Your task to perform on an android device: Go to Google Image 0: 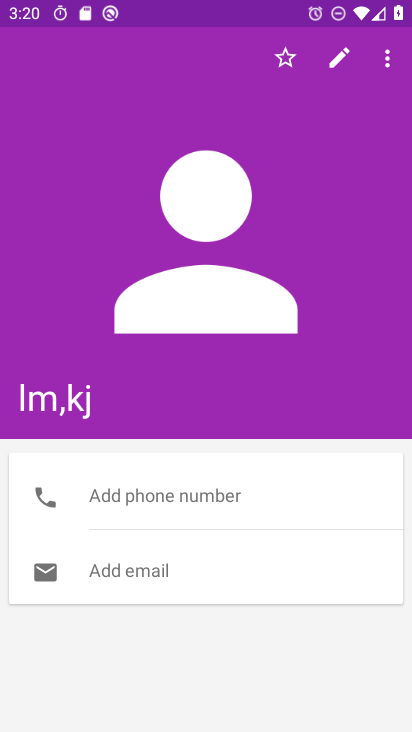
Step 0: press home button
Your task to perform on an android device: Go to Google Image 1: 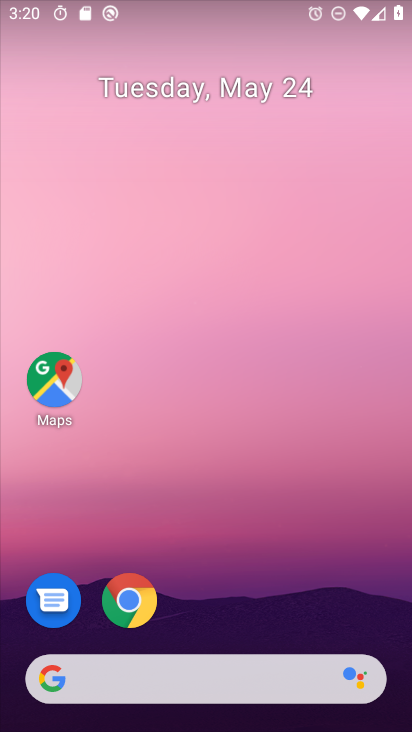
Step 1: drag from (211, 557) to (224, 148)
Your task to perform on an android device: Go to Google Image 2: 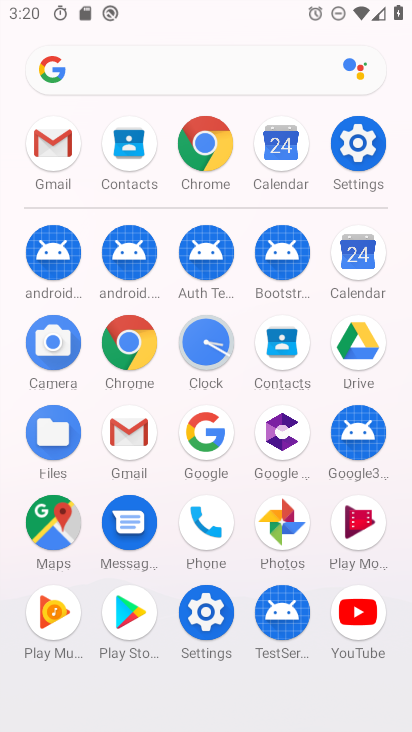
Step 2: click (214, 432)
Your task to perform on an android device: Go to Google Image 3: 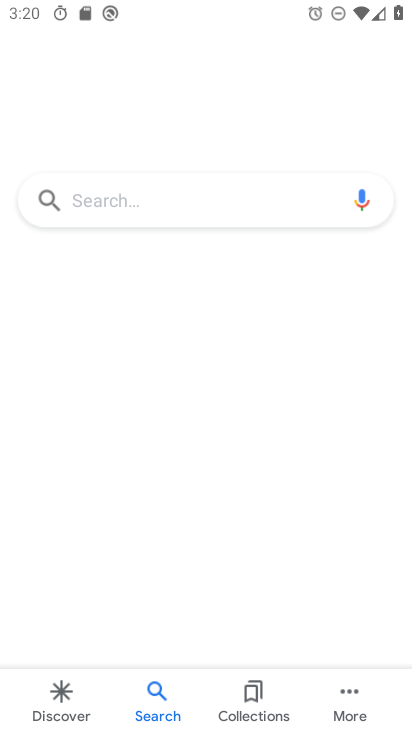
Step 3: task complete